Your task to perform on an android device: Go to wifi settings Image 0: 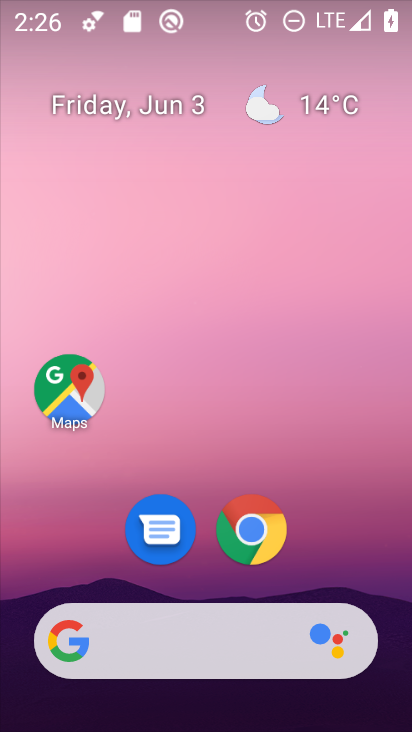
Step 0: drag from (376, 564) to (356, 217)
Your task to perform on an android device: Go to wifi settings Image 1: 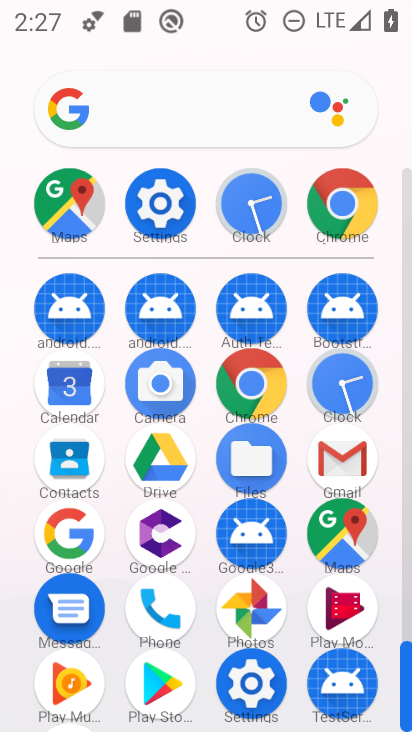
Step 1: click (173, 224)
Your task to perform on an android device: Go to wifi settings Image 2: 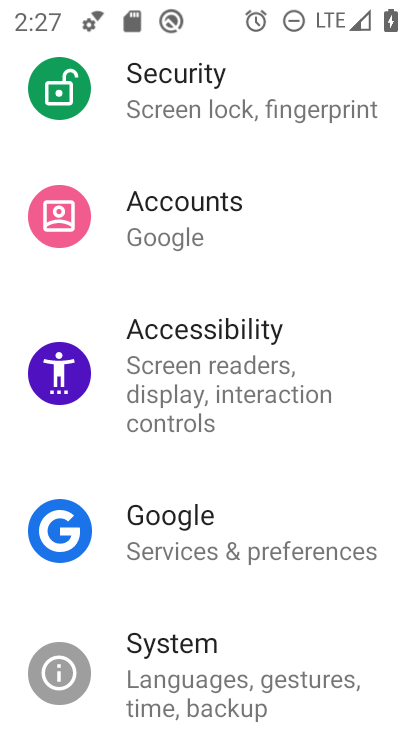
Step 2: drag from (339, 425) to (350, 508)
Your task to perform on an android device: Go to wifi settings Image 3: 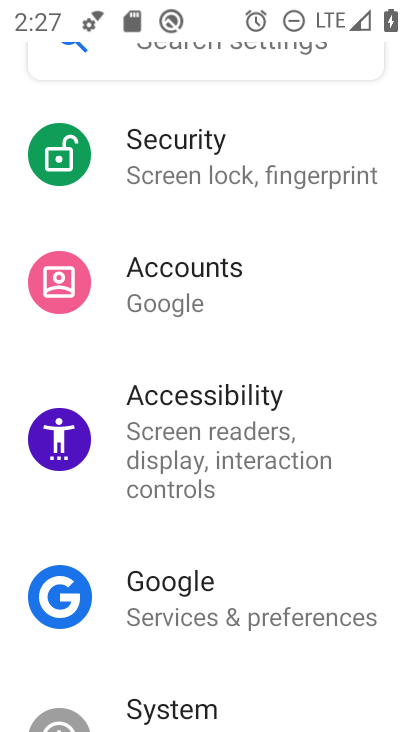
Step 3: drag from (354, 372) to (385, 544)
Your task to perform on an android device: Go to wifi settings Image 4: 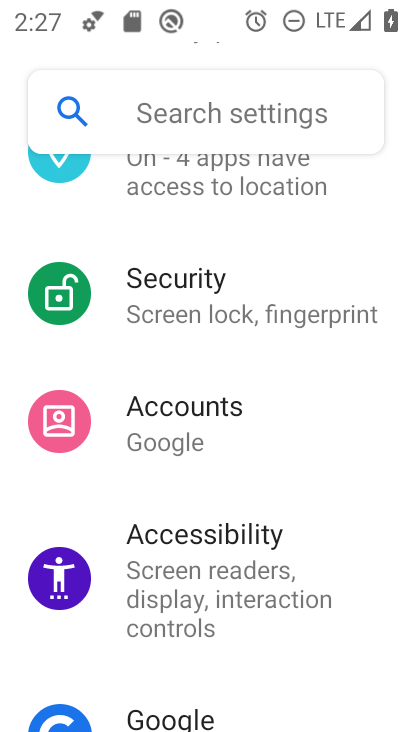
Step 4: drag from (330, 377) to (344, 521)
Your task to perform on an android device: Go to wifi settings Image 5: 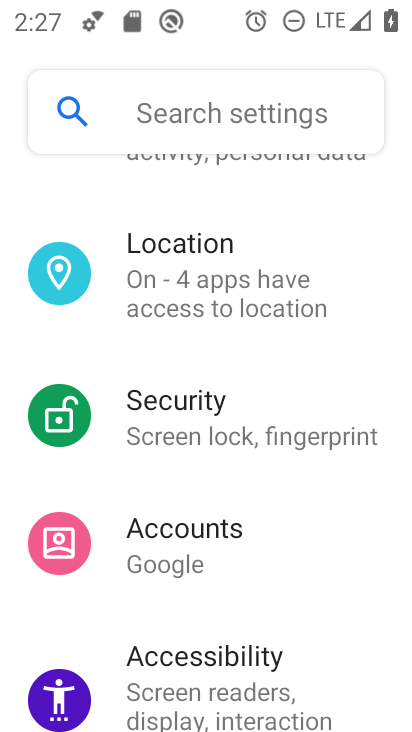
Step 5: drag from (325, 345) to (344, 506)
Your task to perform on an android device: Go to wifi settings Image 6: 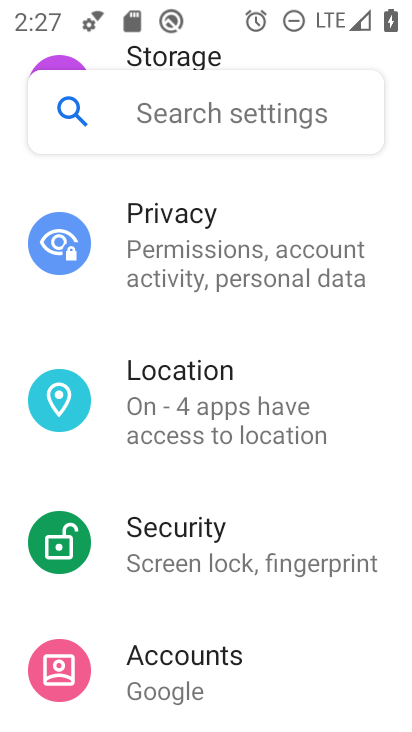
Step 6: drag from (336, 334) to (357, 463)
Your task to perform on an android device: Go to wifi settings Image 7: 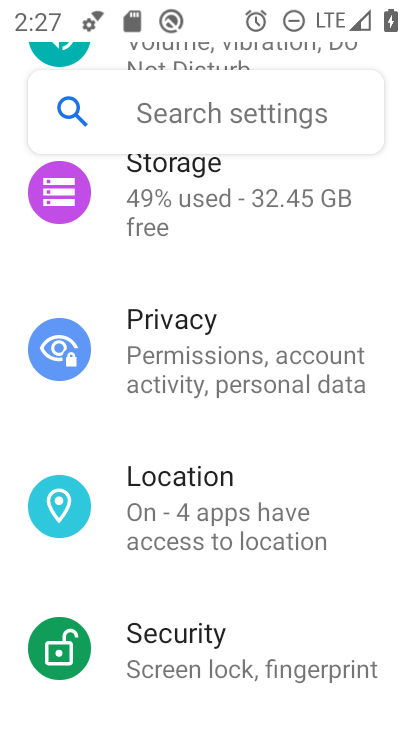
Step 7: drag from (332, 277) to (338, 450)
Your task to perform on an android device: Go to wifi settings Image 8: 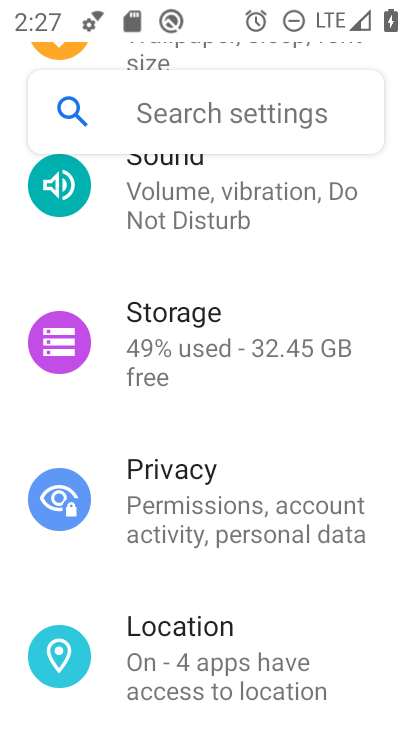
Step 8: drag from (322, 263) to (332, 415)
Your task to perform on an android device: Go to wifi settings Image 9: 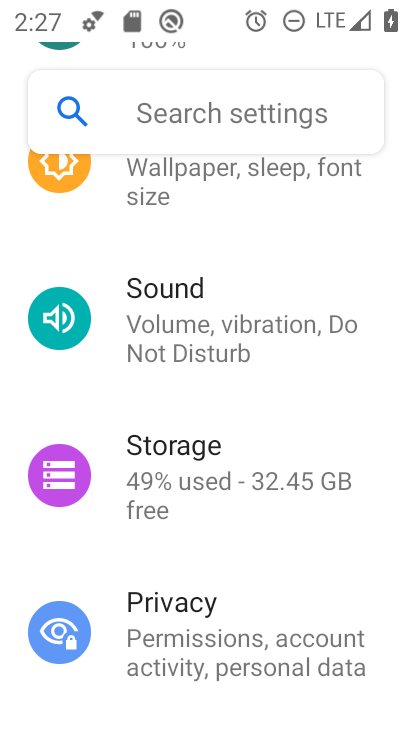
Step 9: drag from (327, 229) to (318, 399)
Your task to perform on an android device: Go to wifi settings Image 10: 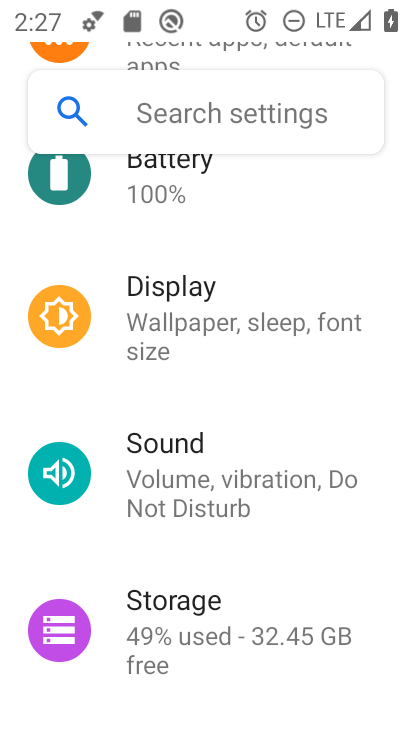
Step 10: drag from (307, 227) to (309, 381)
Your task to perform on an android device: Go to wifi settings Image 11: 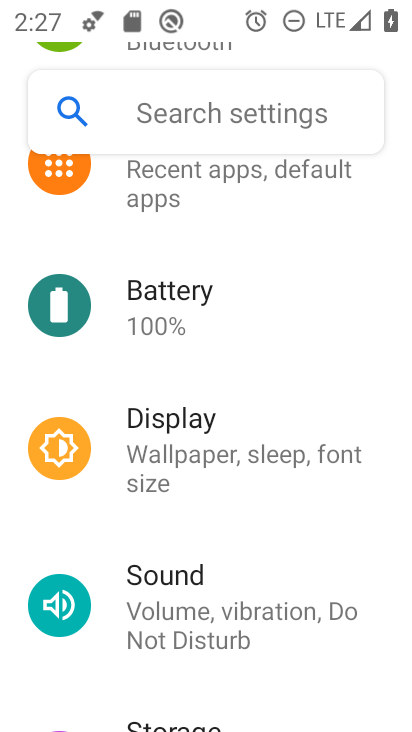
Step 11: drag from (314, 223) to (318, 394)
Your task to perform on an android device: Go to wifi settings Image 12: 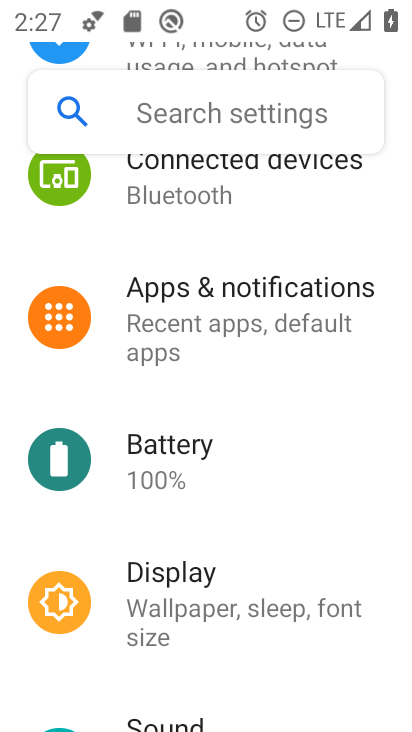
Step 12: drag from (306, 203) to (320, 381)
Your task to perform on an android device: Go to wifi settings Image 13: 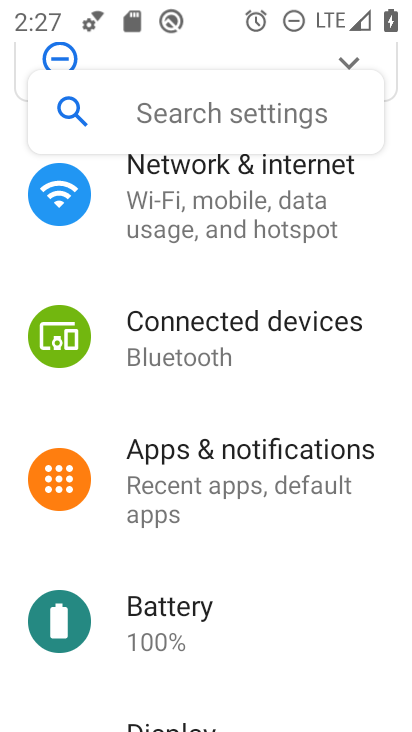
Step 13: drag from (363, 252) to (364, 408)
Your task to perform on an android device: Go to wifi settings Image 14: 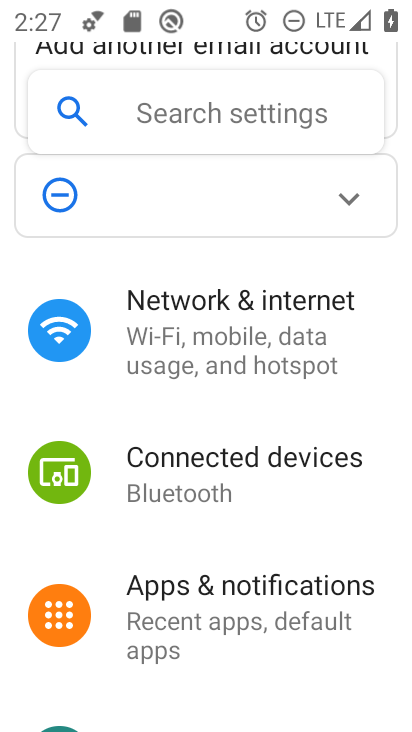
Step 14: click (284, 343)
Your task to perform on an android device: Go to wifi settings Image 15: 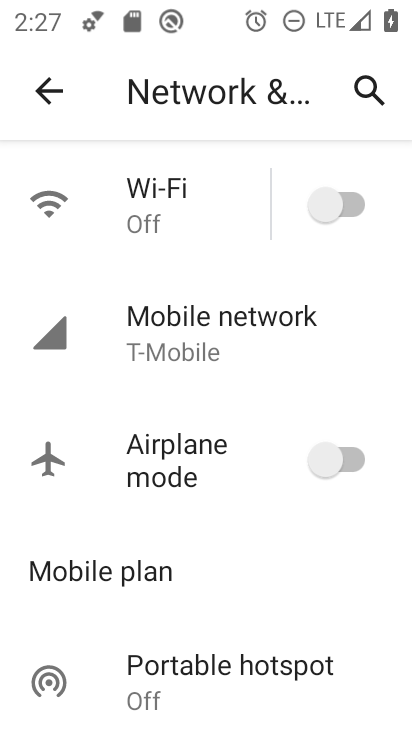
Step 15: click (178, 211)
Your task to perform on an android device: Go to wifi settings Image 16: 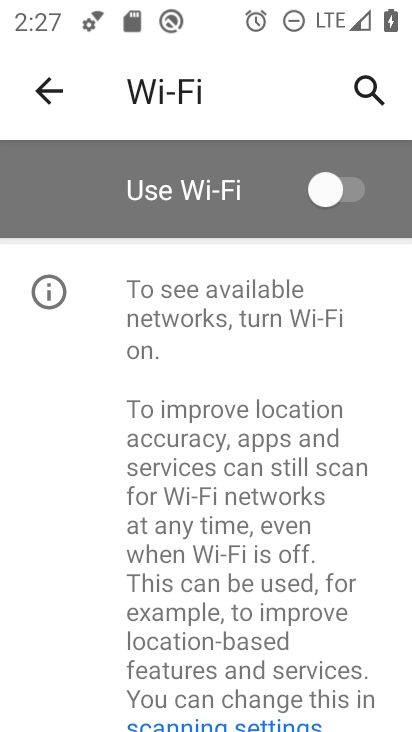
Step 16: task complete